Your task to perform on an android device: Open privacy settings Image 0: 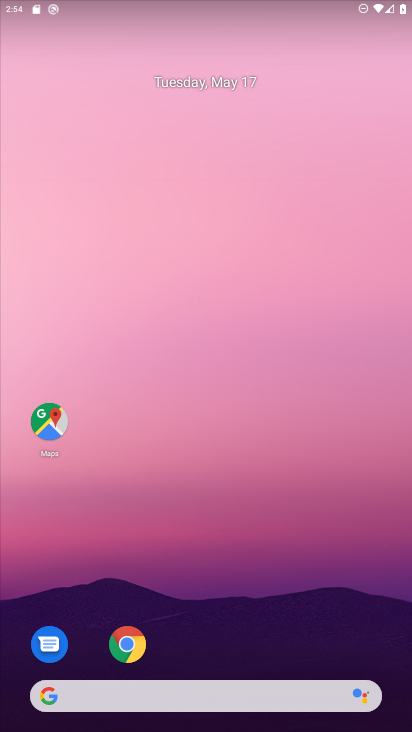
Step 0: drag from (238, 625) to (252, 165)
Your task to perform on an android device: Open privacy settings Image 1: 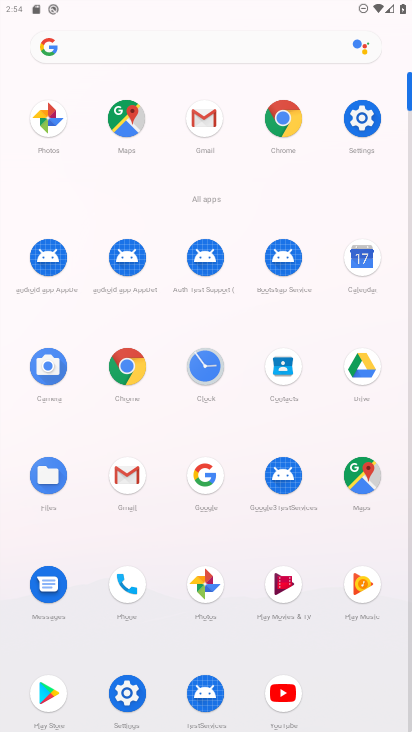
Step 1: click (370, 113)
Your task to perform on an android device: Open privacy settings Image 2: 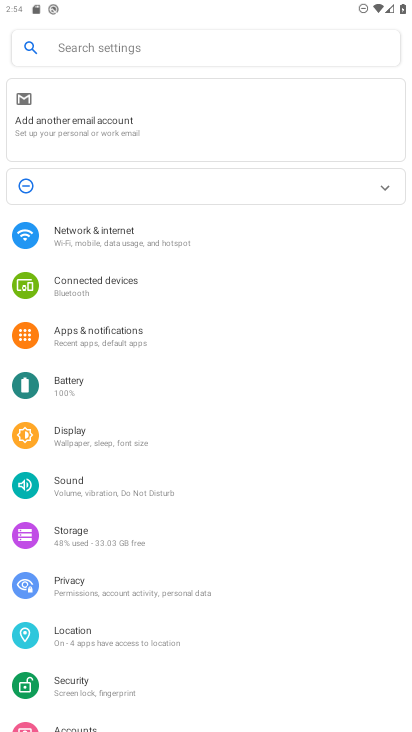
Step 2: click (196, 596)
Your task to perform on an android device: Open privacy settings Image 3: 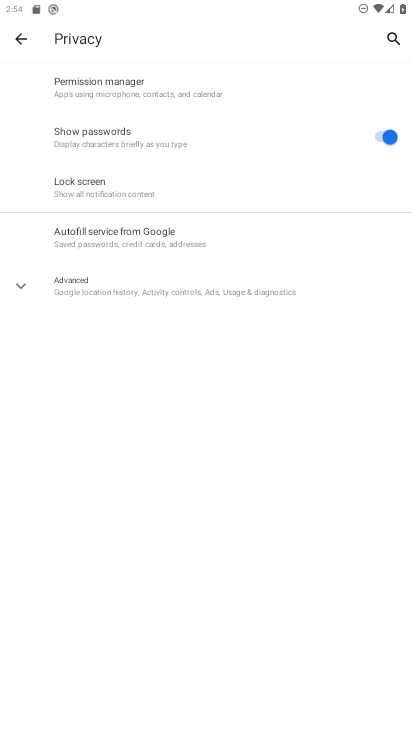
Step 3: task complete